Your task to perform on an android device: open sync settings in chrome Image 0: 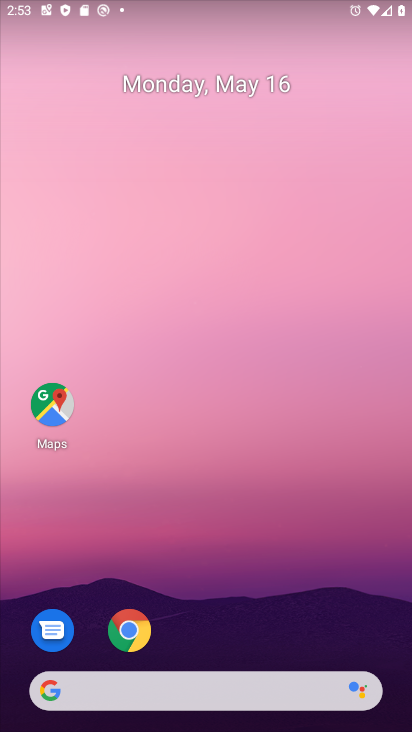
Step 0: click (126, 623)
Your task to perform on an android device: open sync settings in chrome Image 1: 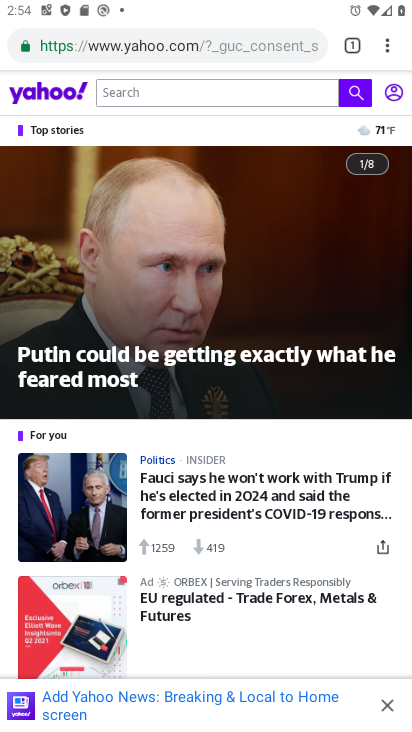
Step 1: click (381, 44)
Your task to perform on an android device: open sync settings in chrome Image 2: 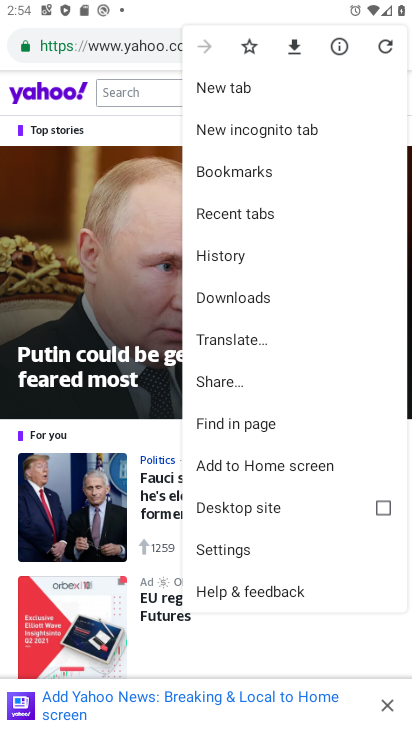
Step 2: click (254, 546)
Your task to perform on an android device: open sync settings in chrome Image 3: 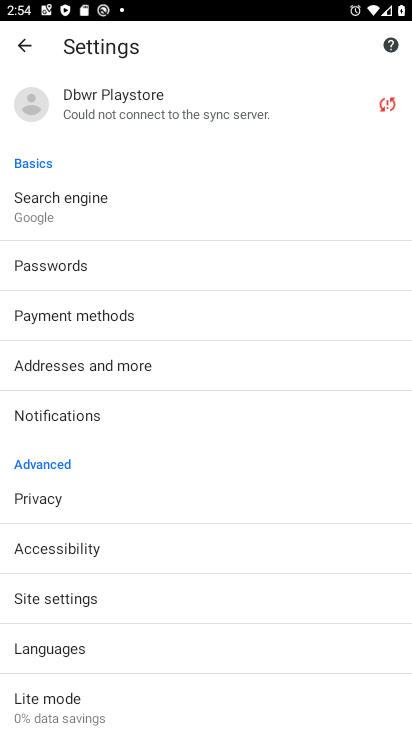
Step 3: click (166, 102)
Your task to perform on an android device: open sync settings in chrome Image 4: 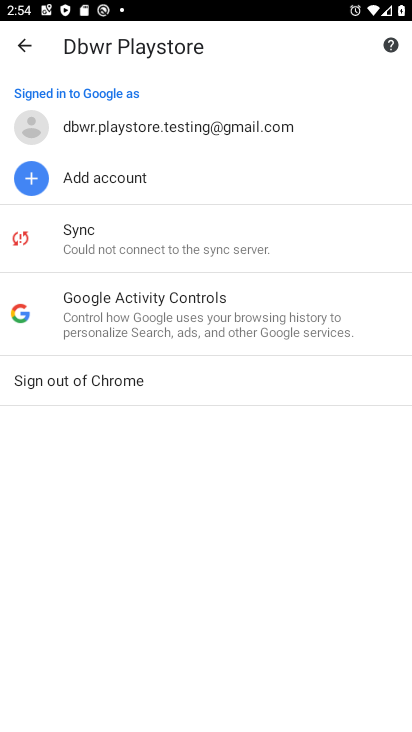
Step 4: click (138, 232)
Your task to perform on an android device: open sync settings in chrome Image 5: 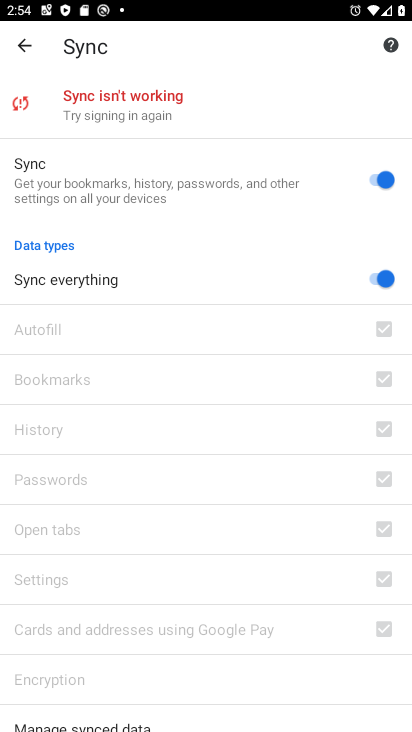
Step 5: task complete